Your task to perform on an android device: Open calendar and show me the third week of next month Image 0: 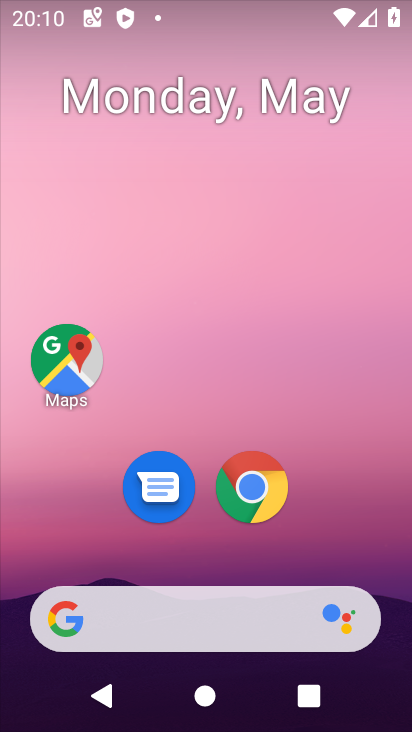
Step 0: drag from (372, 564) to (382, 199)
Your task to perform on an android device: Open calendar and show me the third week of next month Image 1: 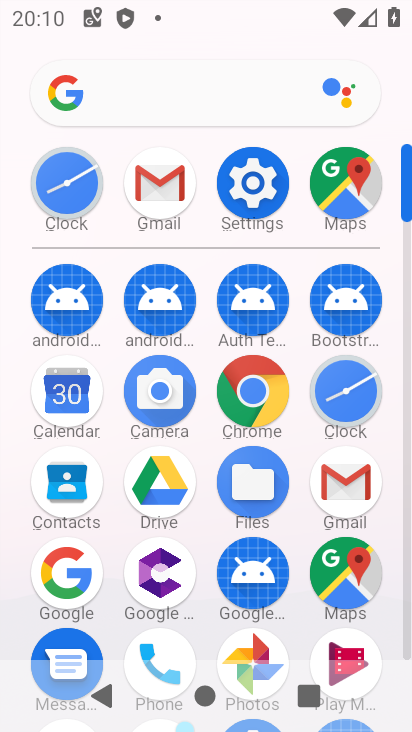
Step 1: click (72, 398)
Your task to perform on an android device: Open calendar and show me the third week of next month Image 2: 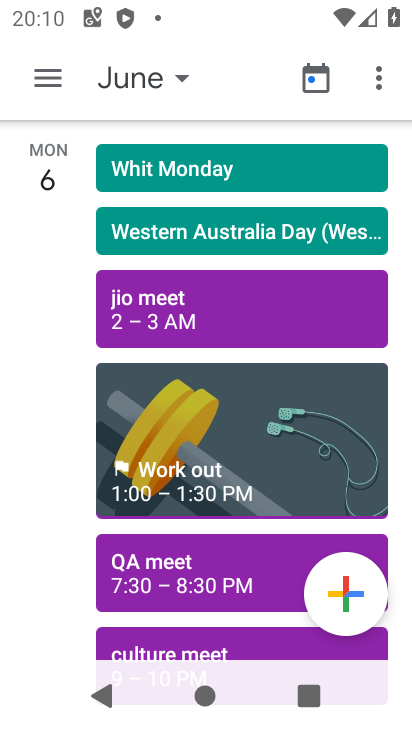
Step 2: click (181, 81)
Your task to perform on an android device: Open calendar and show me the third week of next month Image 3: 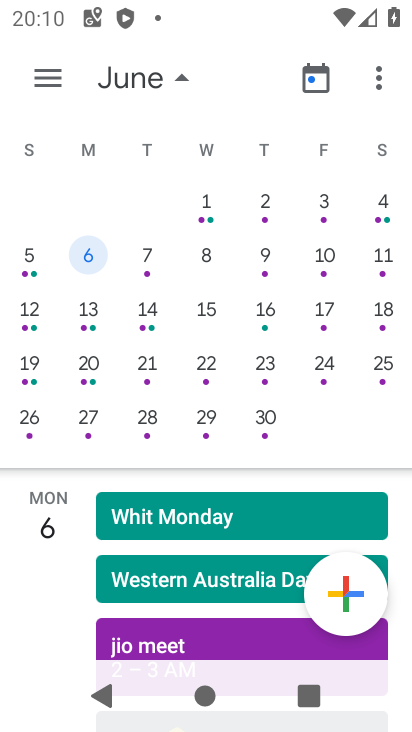
Step 3: click (94, 320)
Your task to perform on an android device: Open calendar and show me the third week of next month Image 4: 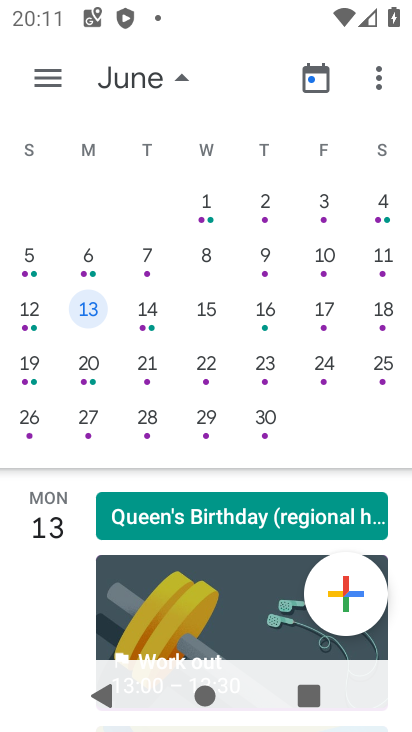
Step 4: task complete